Your task to perform on an android device: Open wifi settings Image 0: 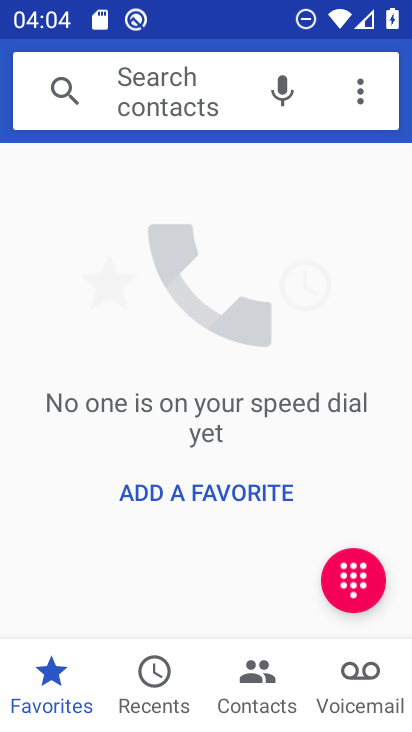
Step 0: press home button
Your task to perform on an android device: Open wifi settings Image 1: 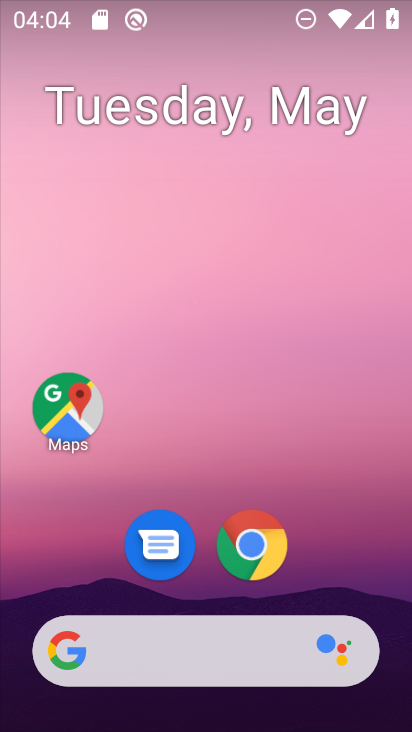
Step 1: drag from (398, 614) to (328, 7)
Your task to perform on an android device: Open wifi settings Image 2: 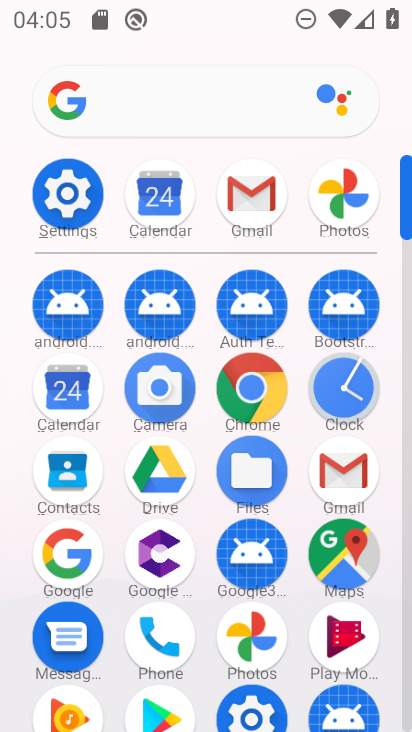
Step 2: click (254, 718)
Your task to perform on an android device: Open wifi settings Image 3: 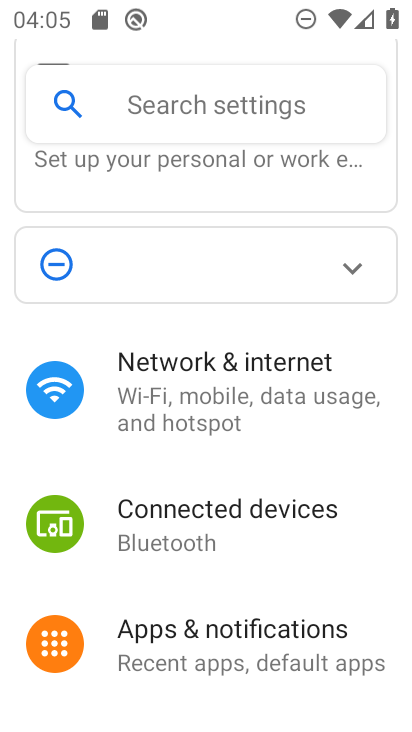
Step 3: click (176, 377)
Your task to perform on an android device: Open wifi settings Image 4: 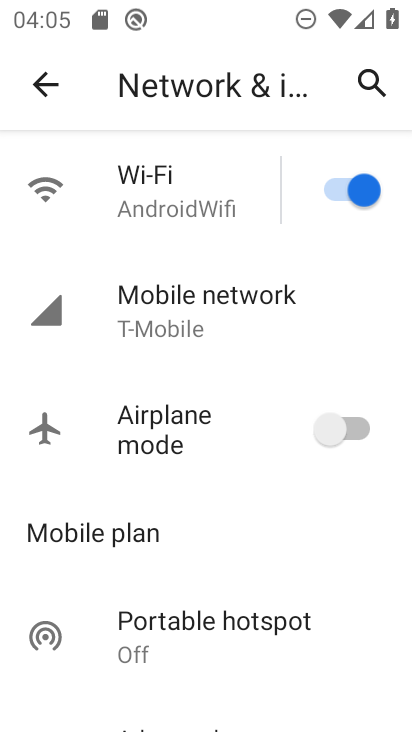
Step 4: click (177, 187)
Your task to perform on an android device: Open wifi settings Image 5: 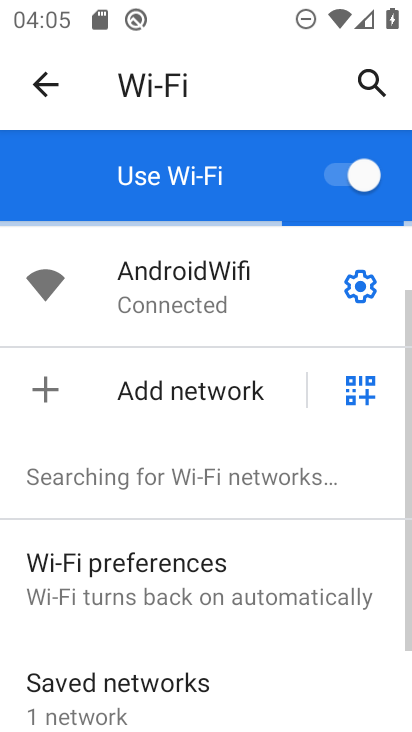
Step 5: drag from (288, 638) to (280, 248)
Your task to perform on an android device: Open wifi settings Image 6: 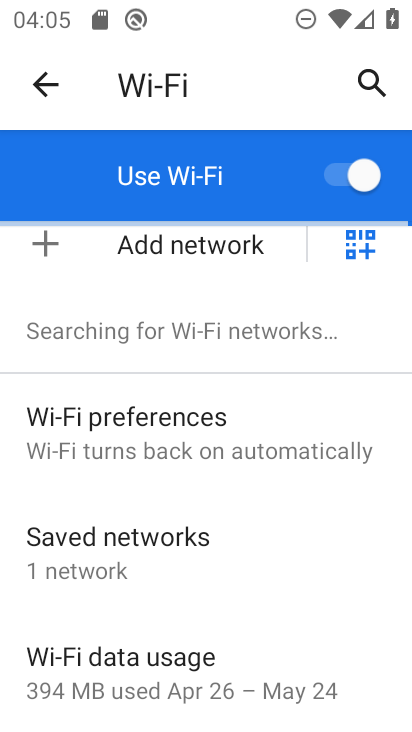
Step 6: drag from (340, 307) to (320, 640)
Your task to perform on an android device: Open wifi settings Image 7: 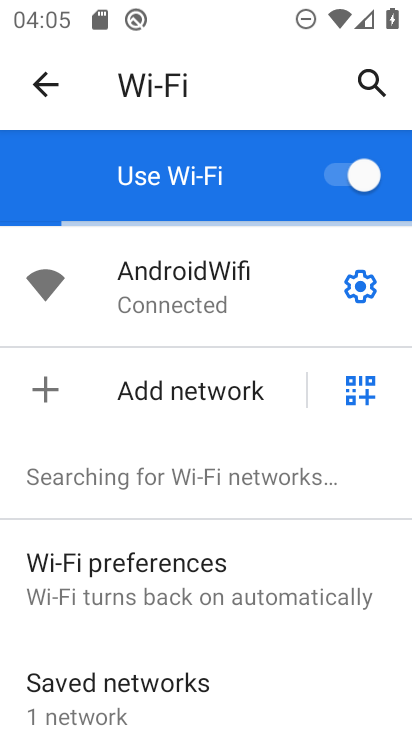
Step 7: click (359, 285)
Your task to perform on an android device: Open wifi settings Image 8: 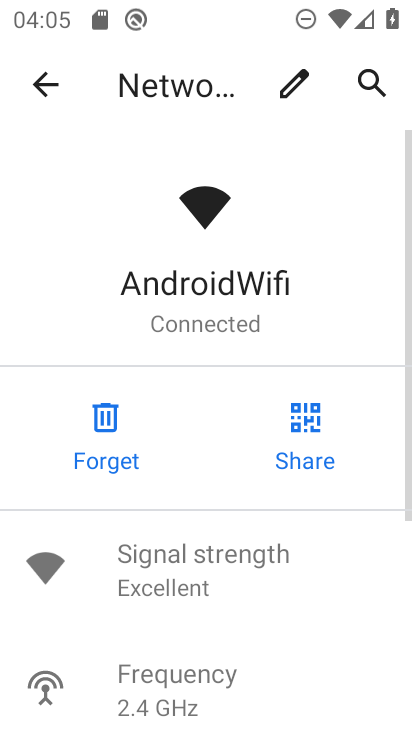
Step 8: drag from (213, 650) to (237, 238)
Your task to perform on an android device: Open wifi settings Image 9: 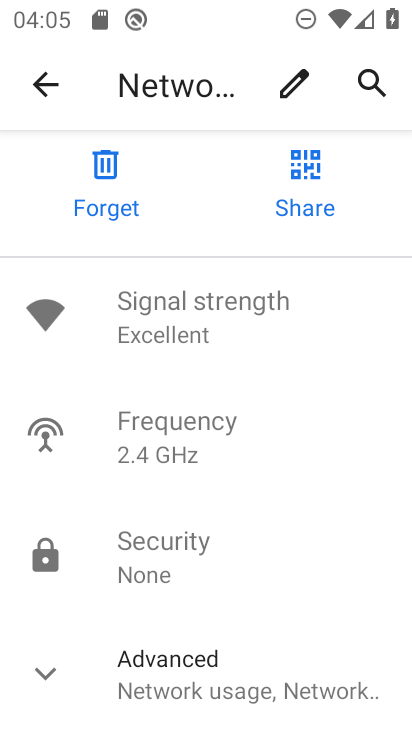
Step 9: click (45, 667)
Your task to perform on an android device: Open wifi settings Image 10: 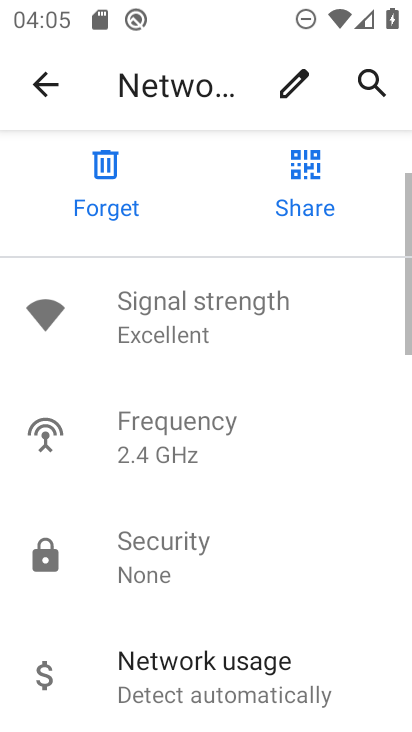
Step 10: click (242, 215)
Your task to perform on an android device: Open wifi settings Image 11: 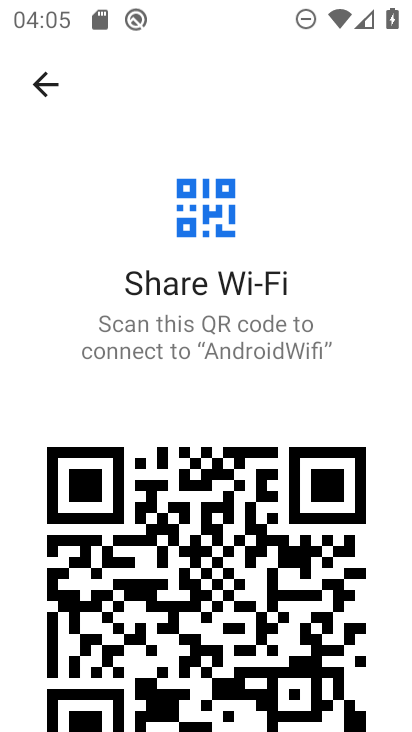
Step 11: task complete